Your task to perform on an android device: check out phone information Image 0: 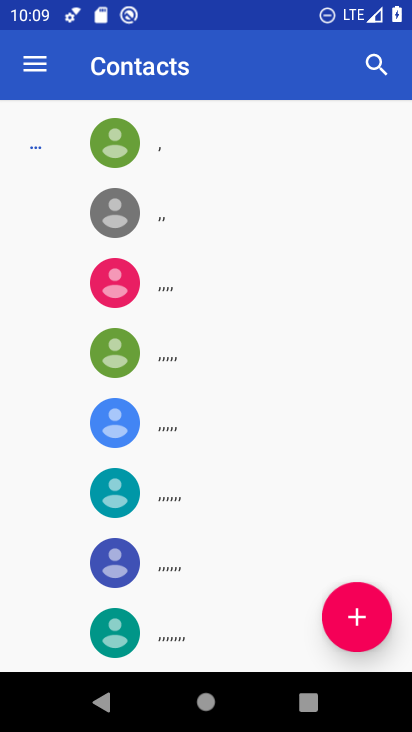
Step 0: press home button
Your task to perform on an android device: check out phone information Image 1: 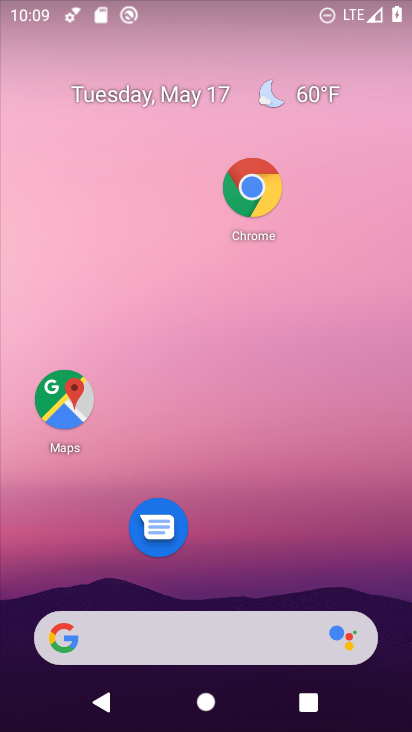
Step 1: drag from (326, 536) to (296, 79)
Your task to perform on an android device: check out phone information Image 2: 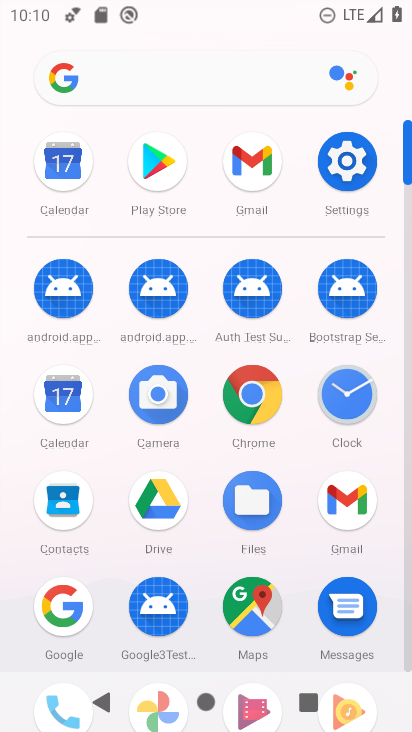
Step 2: click (332, 184)
Your task to perform on an android device: check out phone information Image 3: 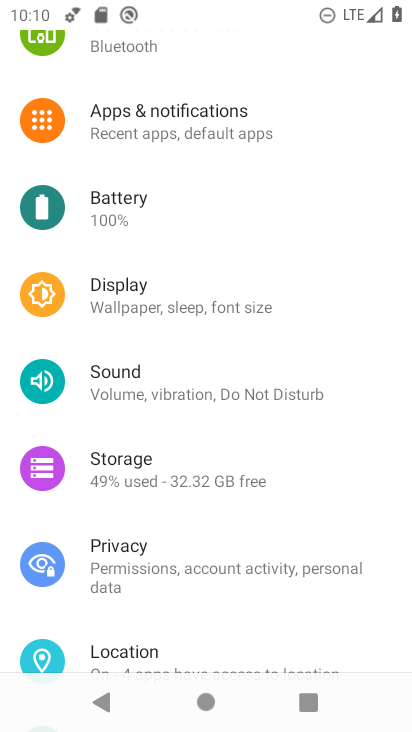
Step 3: drag from (180, 572) to (202, 21)
Your task to perform on an android device: check out phone information Image 4: 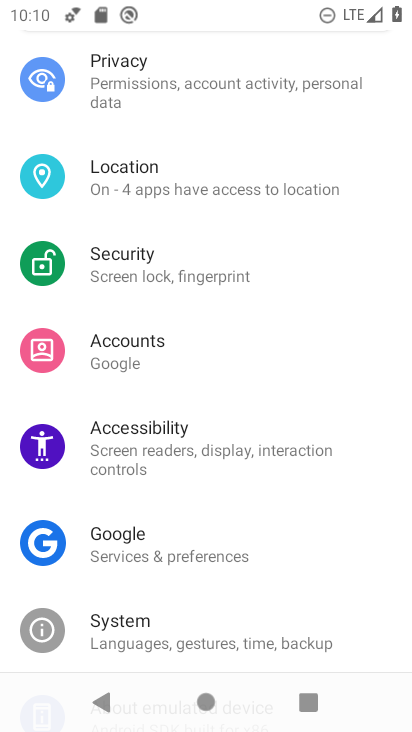
Step 4: drag from (206, 624) to (209, 437)
Your task to perform on an android device: check out phone information Image 5: 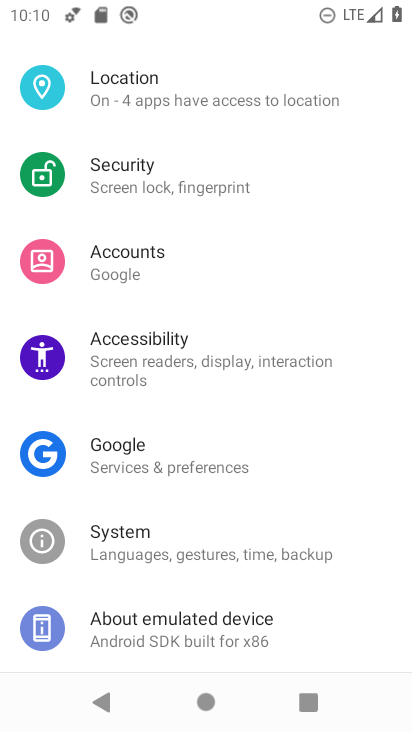
Step 5: click (183, 595)
Your task to perform on an android device: check out phone information Image 6: 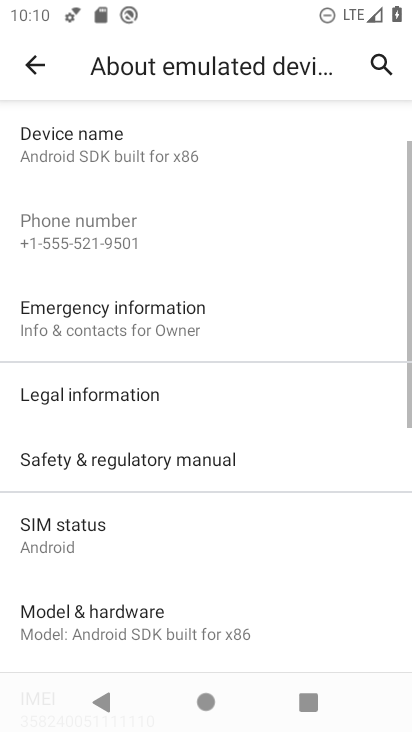
Step 6: task complete